Your task to perform on an android device: turn off location Image 0: 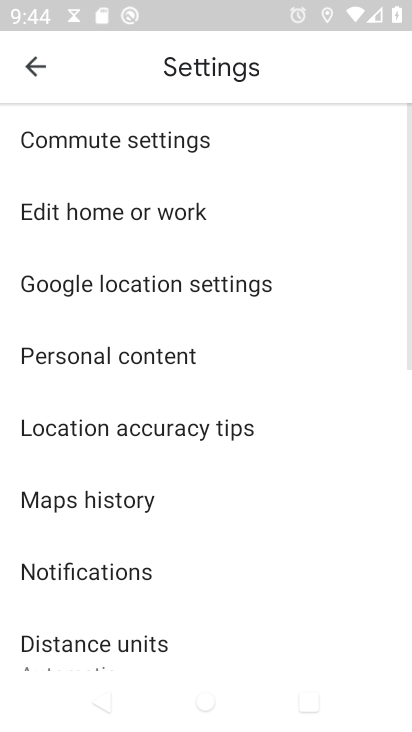
Step 0: press home button
Your task to perform on an android device: turn off location Image 1: 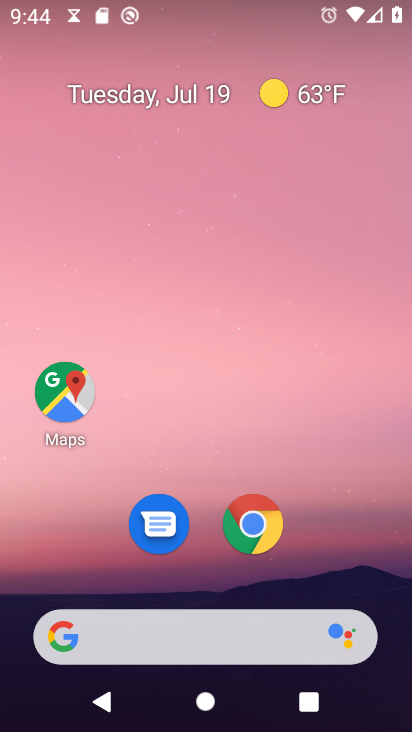
Step 1: drag from (183, 640) to (288, 67)
Your task to perform on an android device: turn off location Image 2: 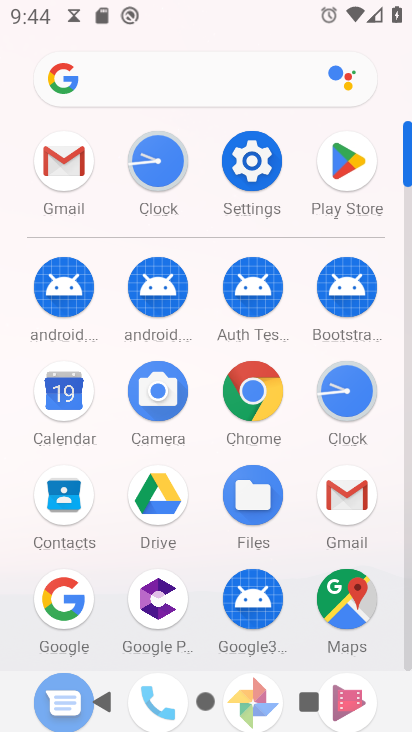
Step 2: click (249, 158)
Your task to perform on an android device: turn off location Image 3: 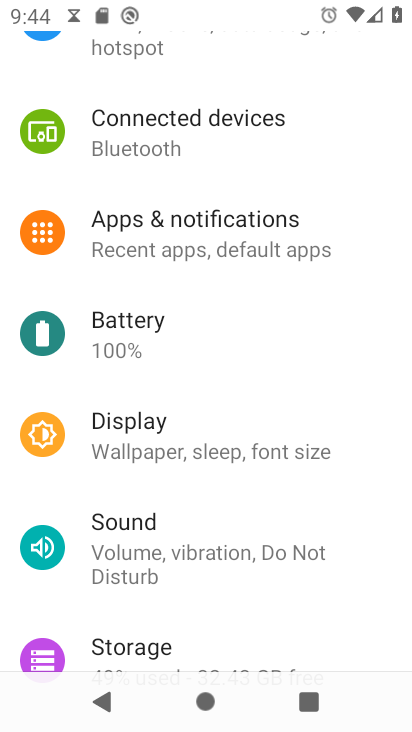
Step 3: drag from (311, 100) to (289, 628)
Your task to perform on an android device: turn off location Image 4: 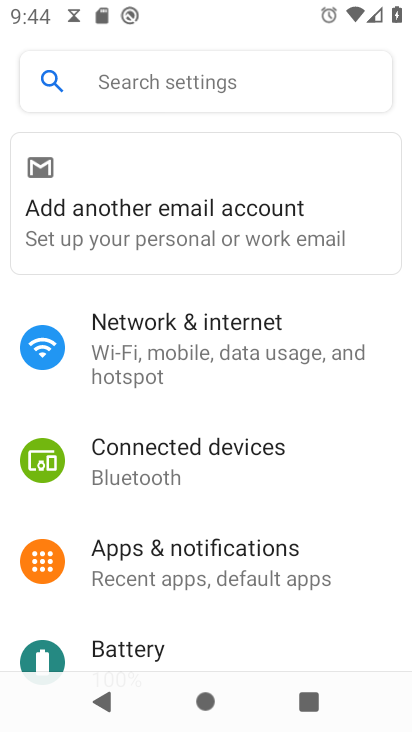
Step 4: drag from (282, 637) to (328, 81)
Your task to perform on an android device: turn off location Image 5: 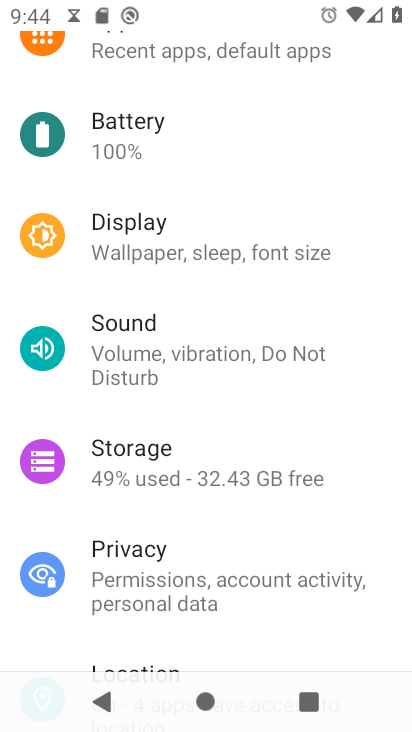
Step 5: drag from (240, 529) to (284, 110)
Your task to perform on an android device: turn off location Image 6: 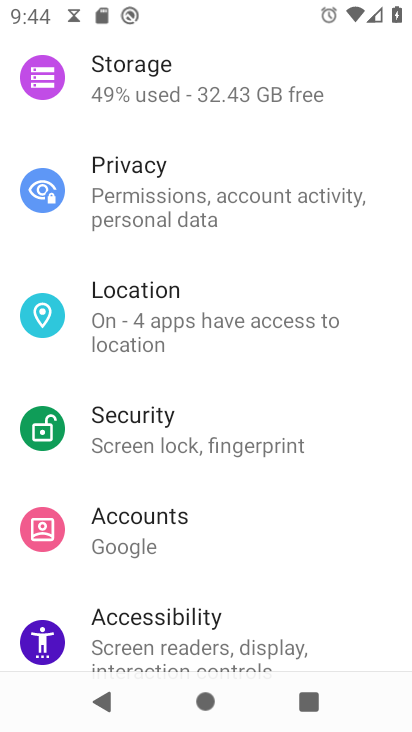
Step 6: click (183, 308)
Your task to perform on an android device: turn off location Image 7: 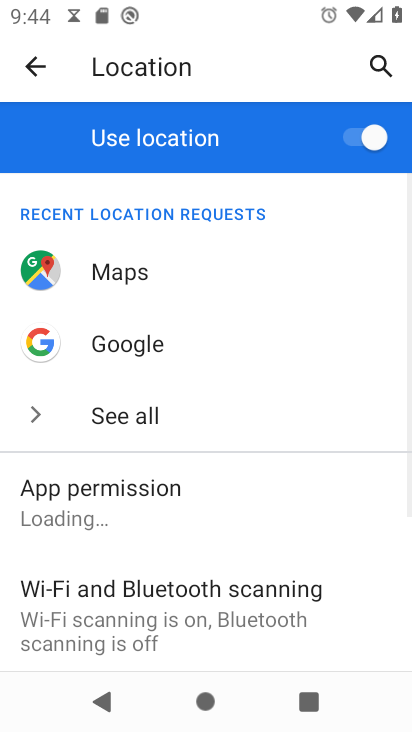
Step 7: click (354, 134)
Your task to perform on an android device: turn off location Image 8: 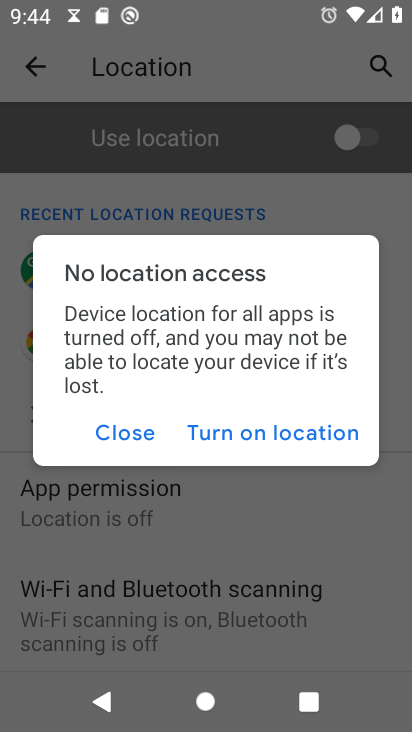
Step 8: click (114, 432)
Your task to perform on an android device: turn off location Image 9: 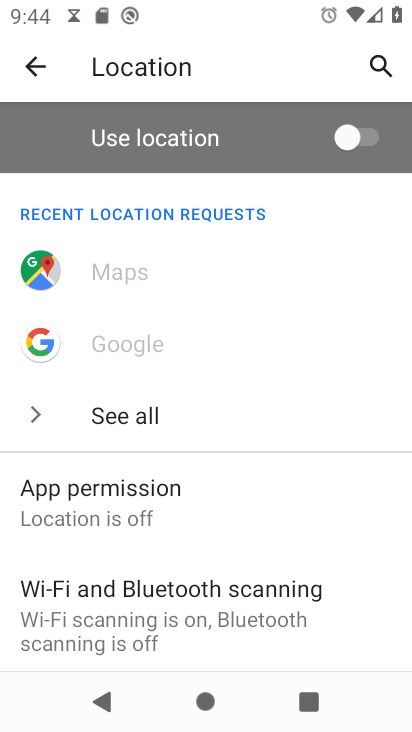
Step 9: task complete